Your task to perform on an android device: turn pop-ups off in chrome Image 0: 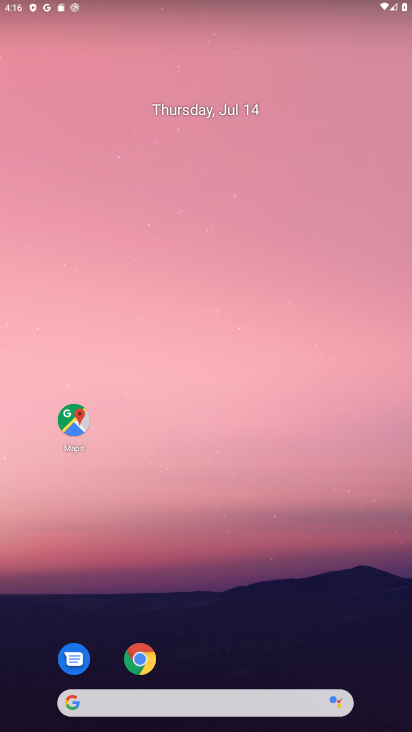
Step 0: click (208, 78)
Your task to perform on an android device: turn pop-ups off in chrome Image 1: 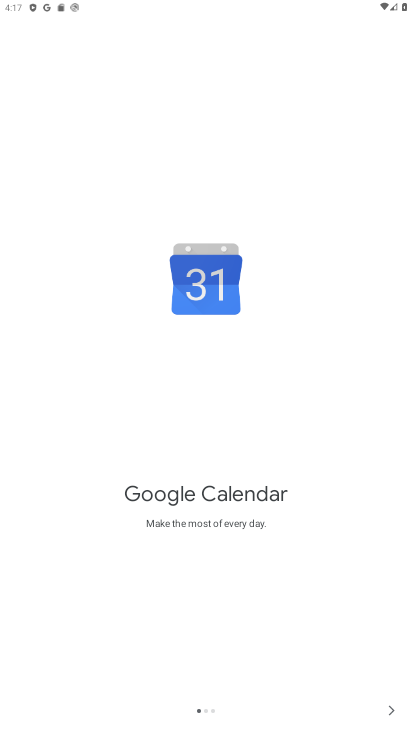
Step 1: press back button
Your task to perform on an android device: turn pop-ups off in chrome Image 2: 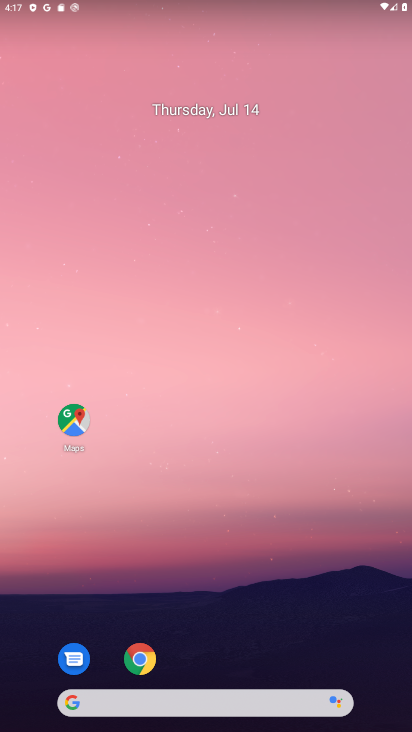
Step 2: drag from (202, 486) to (239, 120)
Your task to perform on an android device: turn pop-ups off in chrome Image 3: 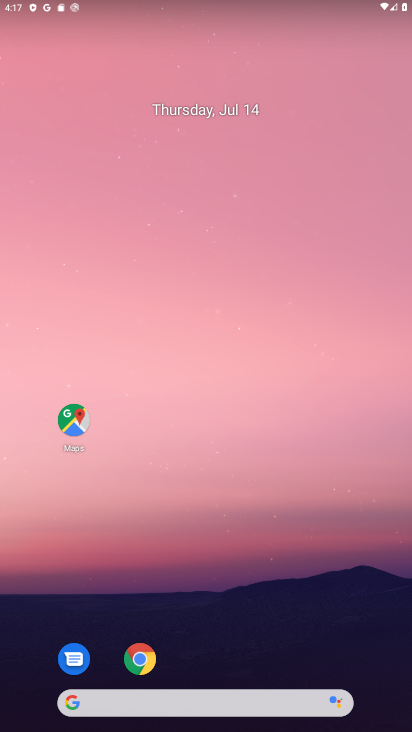
Step 3: drag from (217, 454) to (134, 72)
Your task to perform on an android device: turn pop-ups off in chrome Image 4: 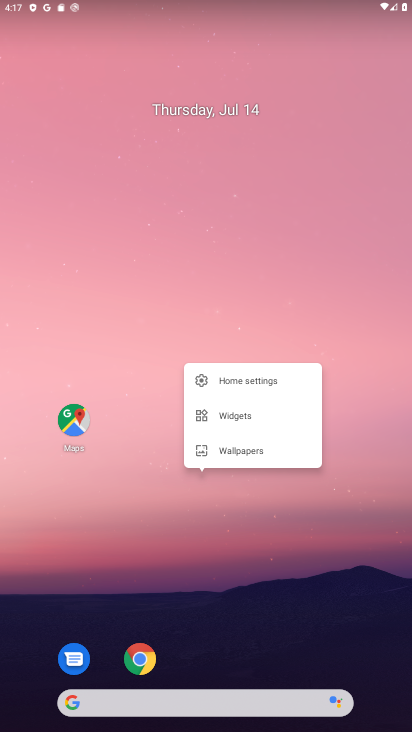
Step 4: drag from (167, 418) to (122, 128)
Your task to perform on an android device: turn pop-ups off in chrome Image 5: 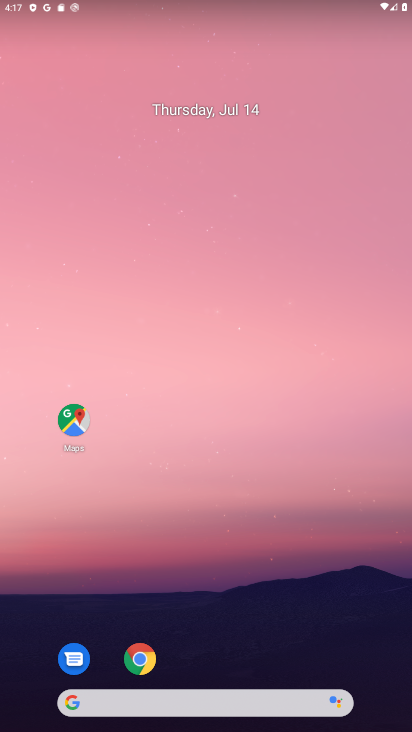
Step 5: drag from (154, 482) to (121, 56)
Your task to perform on an android device: turn pop-ups off in chrome Image 6: 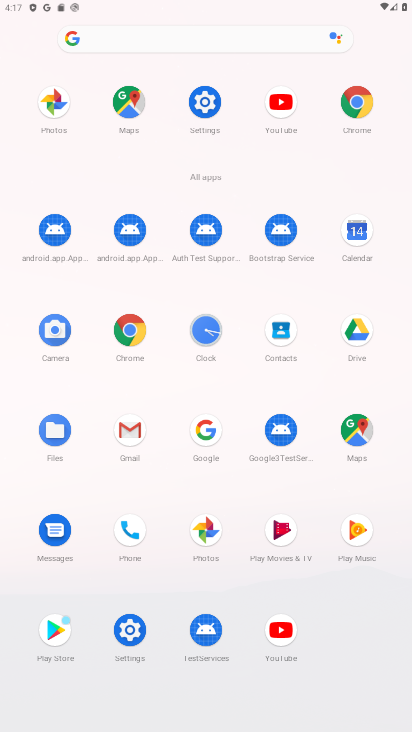
Step 6: click (353, 92)
Your task to perform on an android device: turn pop-ups off in chrome Image 7: 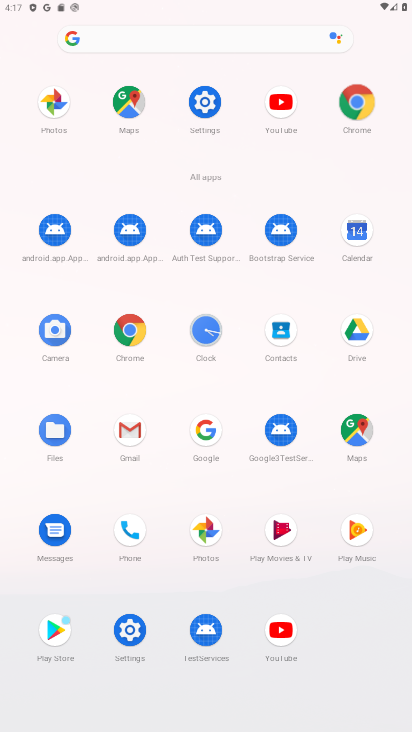
Step 7: click (355, 92)
Your task to perform on an android device: turn pop-ups off in chrome Image 8: 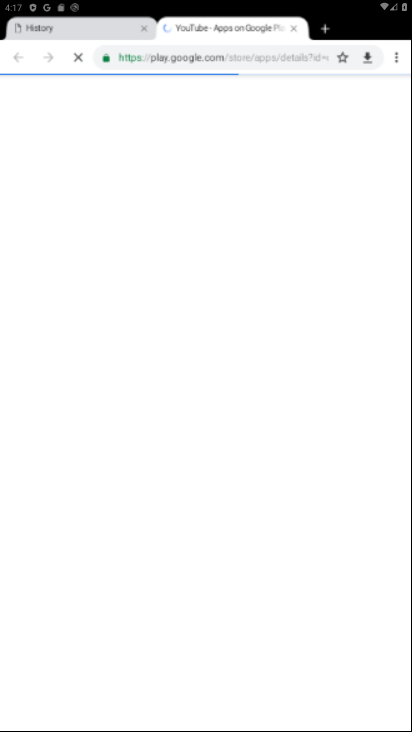
Step 8: click (358, 92)
Your task to perform on an android device: turn pop-ups off in chrome Image 9: 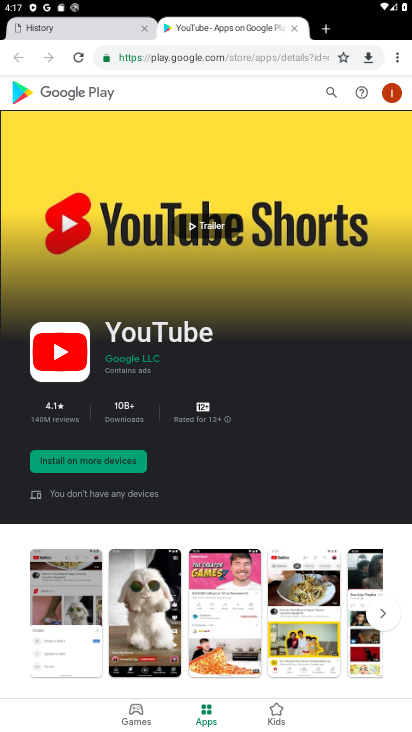
Step 9: drag from (396, 50) to (367, 104)
Your task to perform on an android device: turn pop-ups off in chrome Image 10: 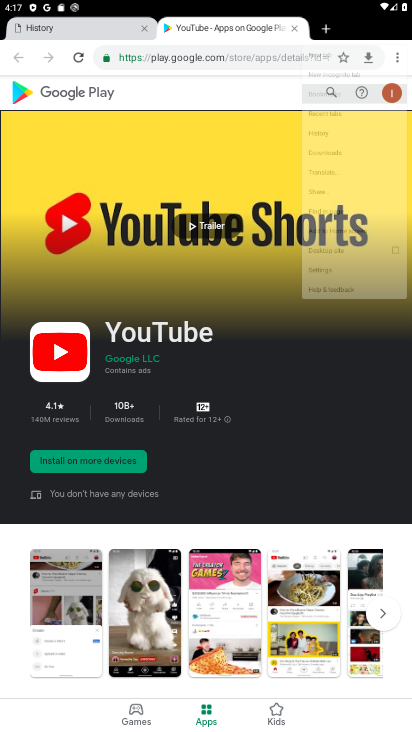
Step 10: drag from (397, 63) to (268, 261)
Your task to perform on an android device: turn pop-ups off in chrome Image 11: 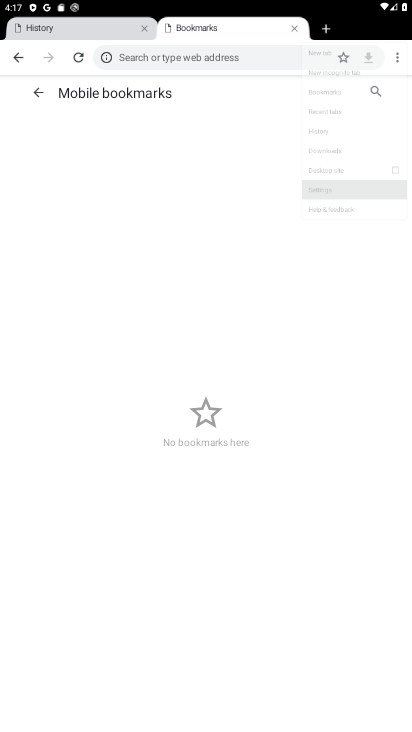
Step 11: click (271, 263)
Your task to perform on an android device: turn pop-ups off in chrome Image 12: 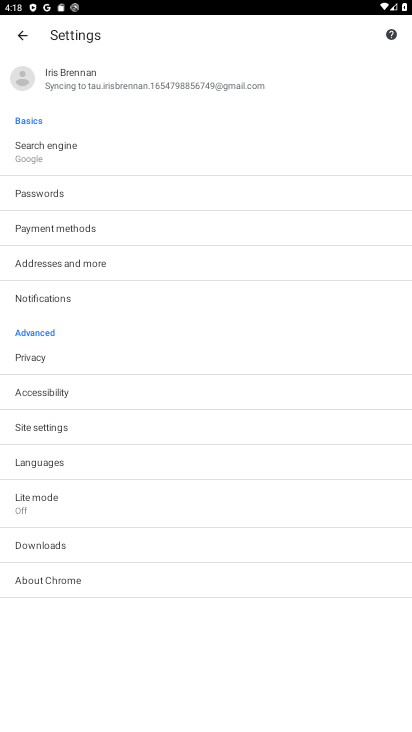
Step 12: click (31, 424)
Your task to perform on an android device: turn pop-ups off in chrome Image 13: 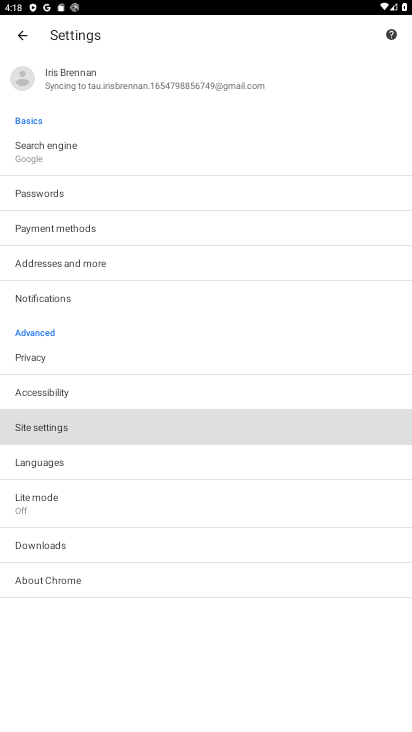
Step 13: click (31, 424)
Your task to perform on an android device: turn pop-ups off in chrome Image 14: 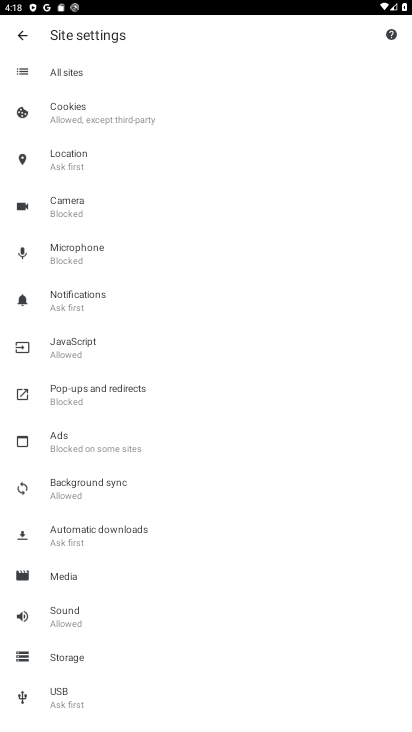
Step 14: click (62, 394)
Your task to perform on an android device: turn pop-ups off in chrome Image 15: 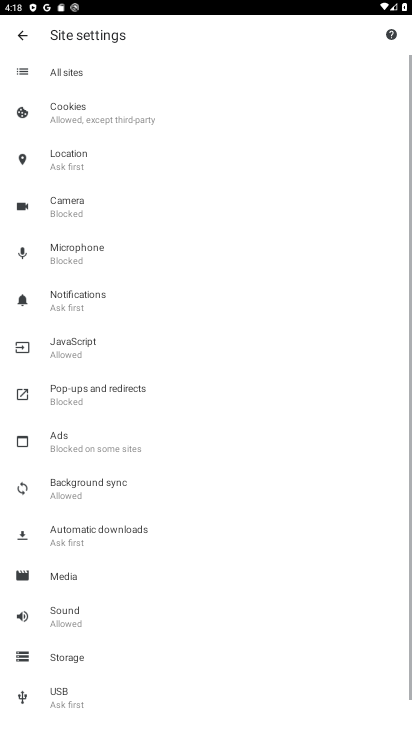
Step 15: click (64, 393)
Your task to perform on an android device: turn pop-ups off in chrome Image 16: 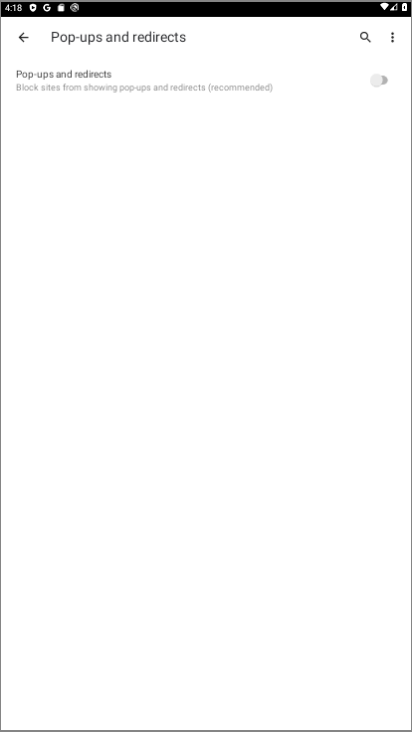
Step 16: click (64, 393)
Your task to perform on an android device: turn pop-ups off in chrome Image 17: 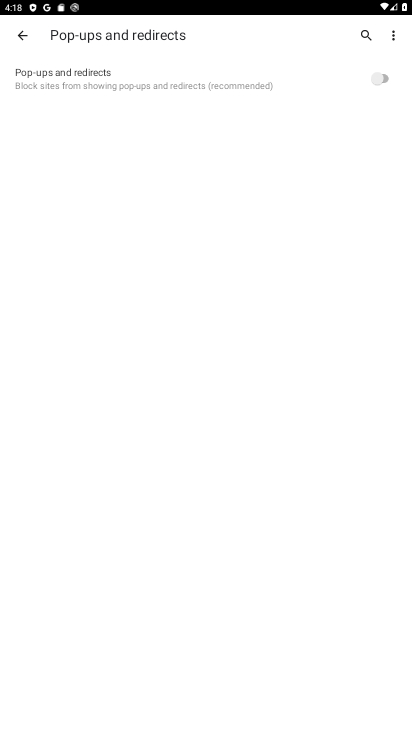
Step 17: task complete